Your task to perform on an android device: see sites visited before in the chrome app Image 0: 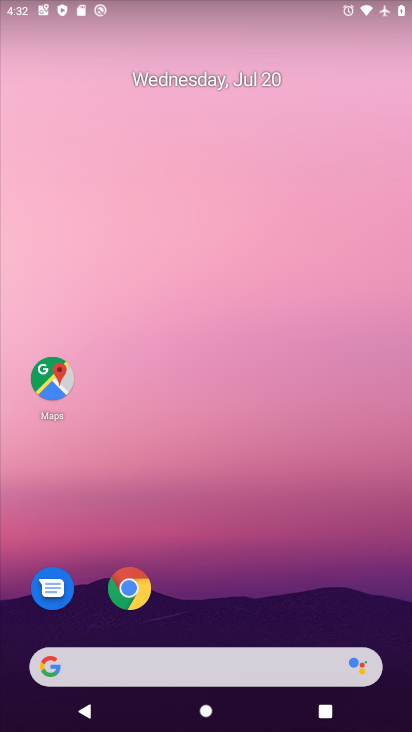
Step 0: drag from (251, 598) to (240, 152)
Your task to perform on an android device: see sites visited before in the chrome app Image 1: 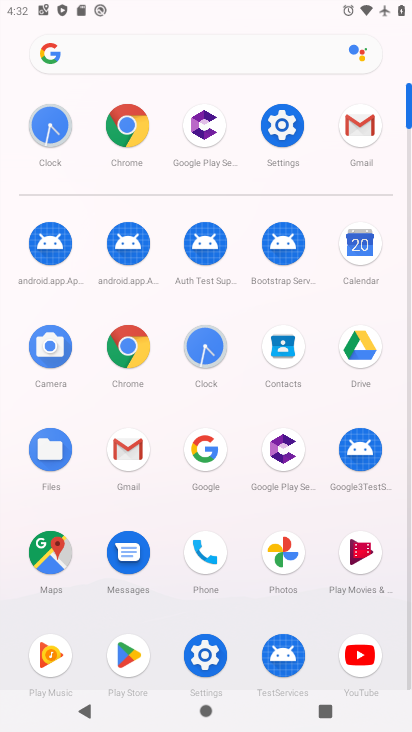
Step 1: click (120, 341)
Your task to perform on an android device: see sites visited before in the chrome app Image 2: 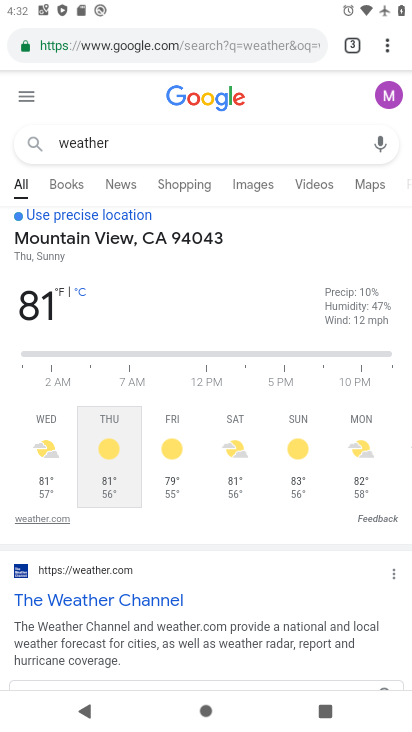
Step 2: task complete